Your task to perform on an android device: Go to accessibility settings Image 0: 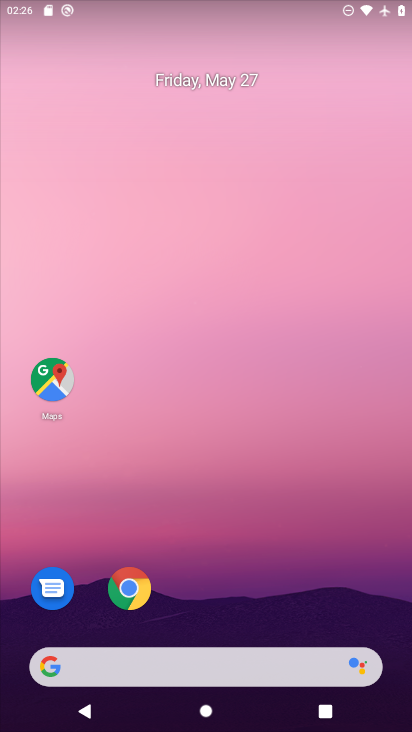
Step 0: drag from (352, 608) to (328, 98)
Your task to perform on an android device: Go to accessibility settings Image 1: 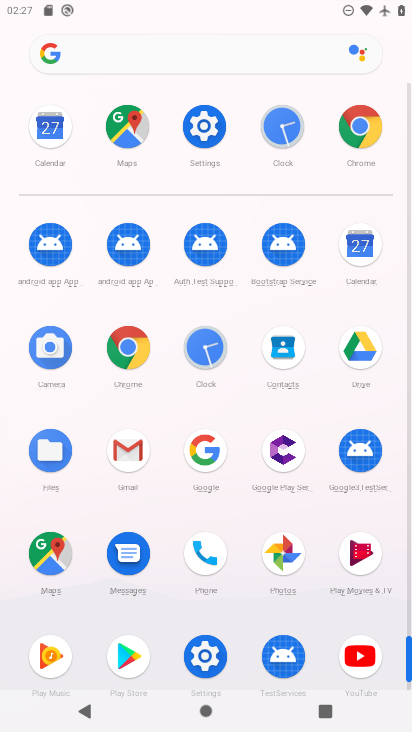
Step 1: click (207, 659)
Your task to perform on an android device: Go to accessibility settings Image 2: 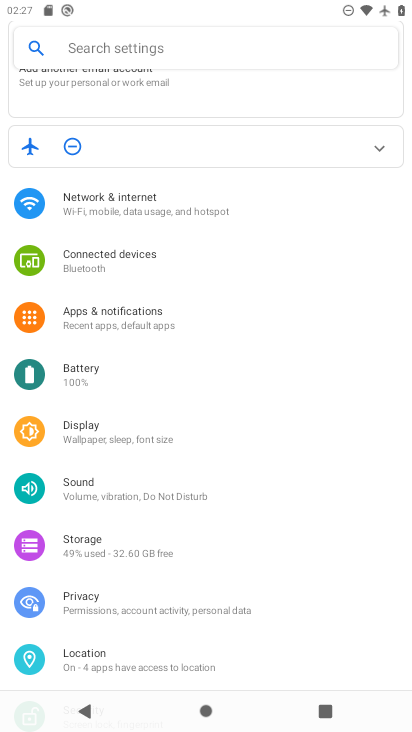
Step 2: click (241, 258)
Your task to perform on an android device: Go to accessibility settings Image 3: 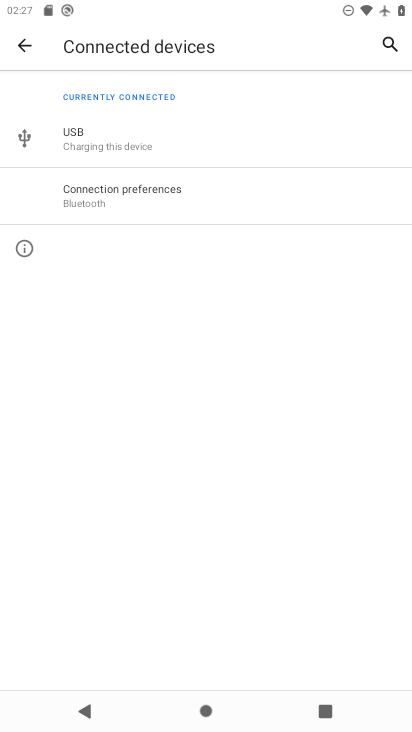
Step 3: press back button
Your task to perform on an android device: Go to accessibility settings Image 4: 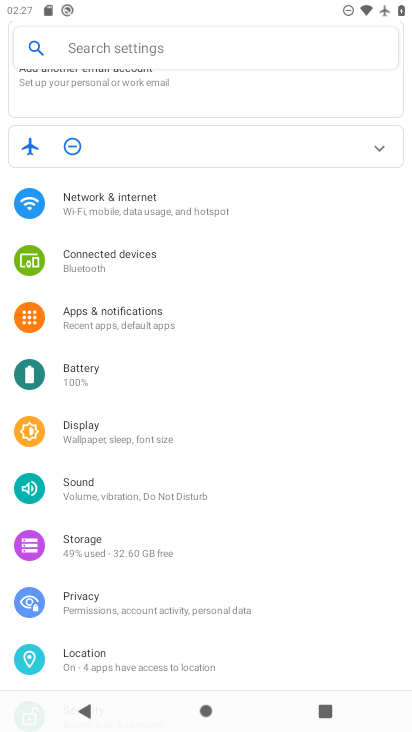
Step 4: drag from (197, 647) to (262, 225)
Your task to perform on an android device: Go to accessibility settings Image 5: 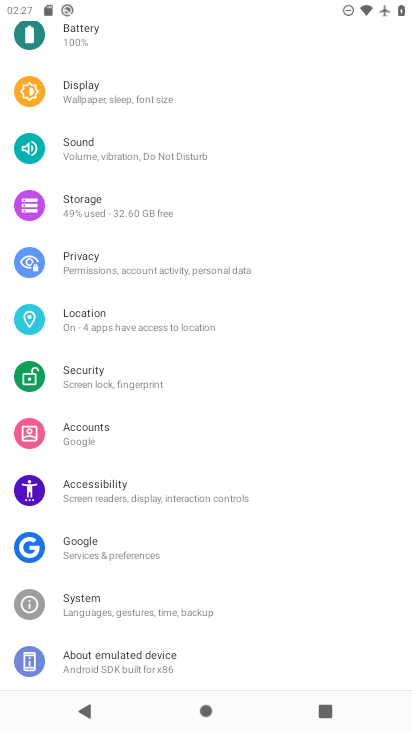
Step 5: click (119, 488)
Your task to perform on an android device: Go to accessibility settings Image 6: 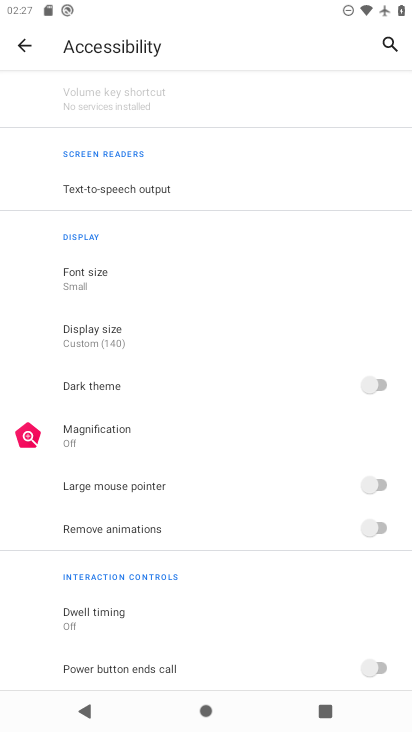
Step 6: task complete